Your task to perform on an android device: set default search engine in the chrome app Image 0: 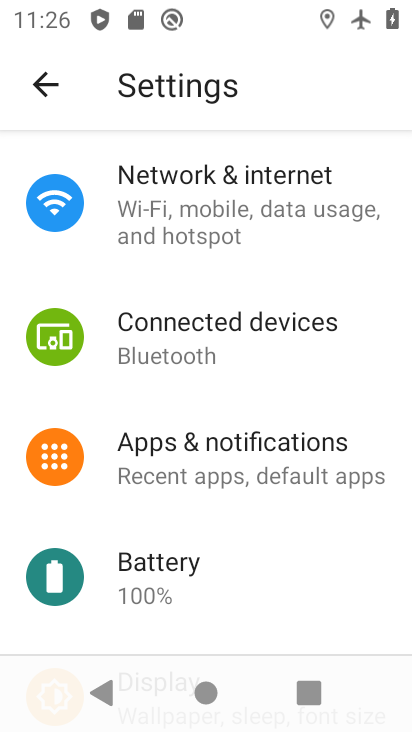
Step 0: press home button
Your task to perform on an android device: set default search engine in the chrome app Image 1: 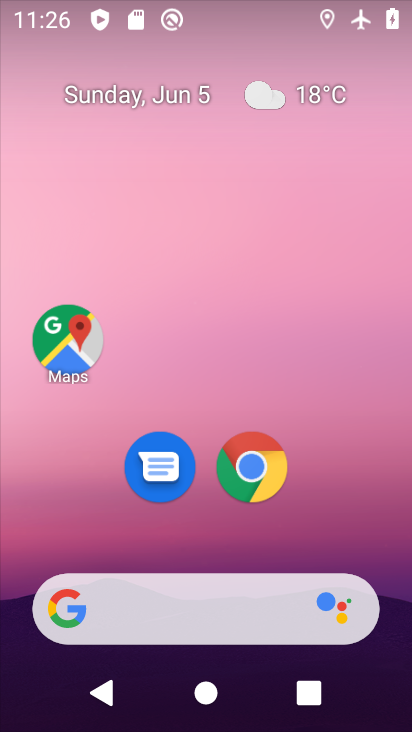
Step 1: click (256, 500)
Your task to perform on an android device: set default search engine in the chrome app Image 2: 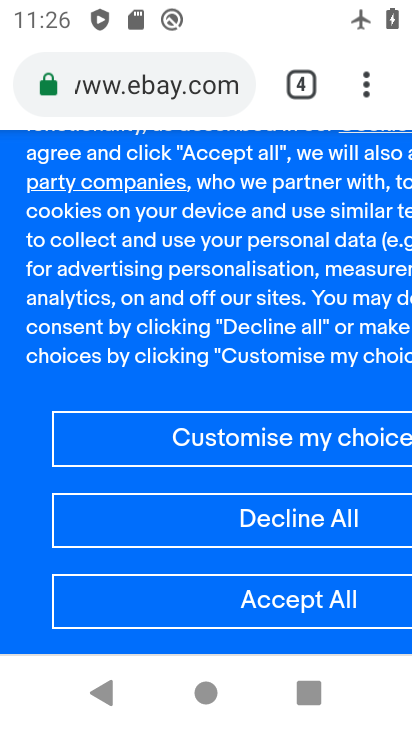
Step 2: click (373, 86)
Your task to perform on an android device: set default search engine in the chrome app Image 3: 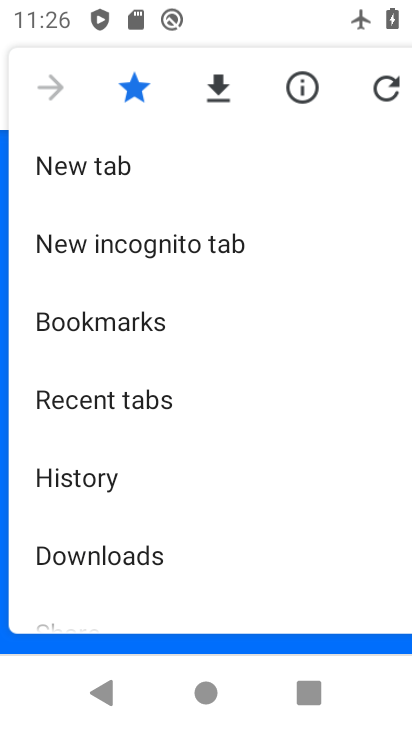
Step 3: drag from (79, 585) to (52, 68)
Your task to perform on an android device: set default search engine in the chrome app Image 4: 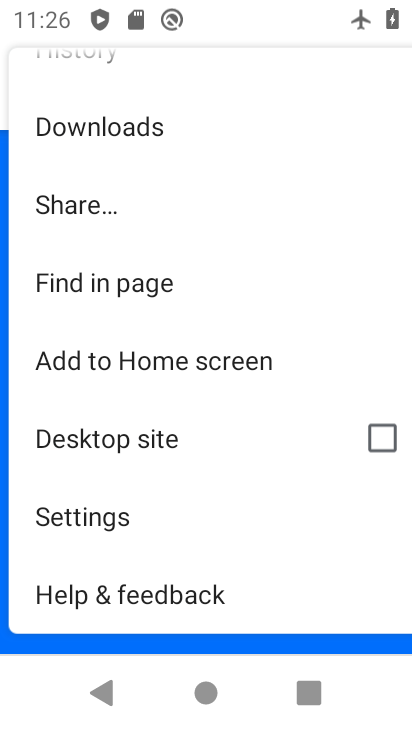
Step 4: click (71, 508)
Your task to perform on an android device: set default search engine in the chrome app Image 5: 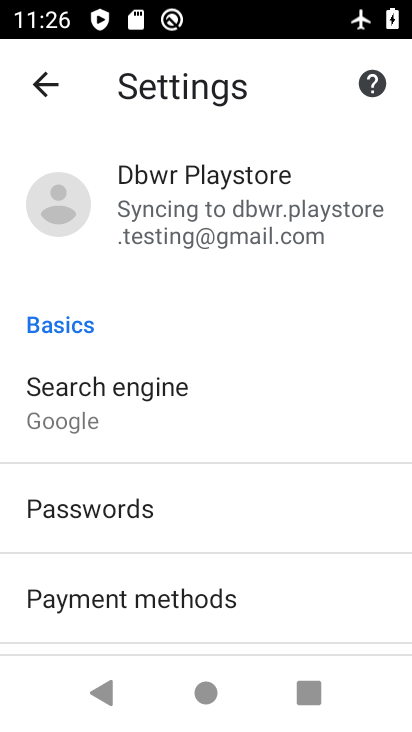
Step 5: click (100, 456)
Your task to perform on an android device: set default search engine in the chrome app Image 6: 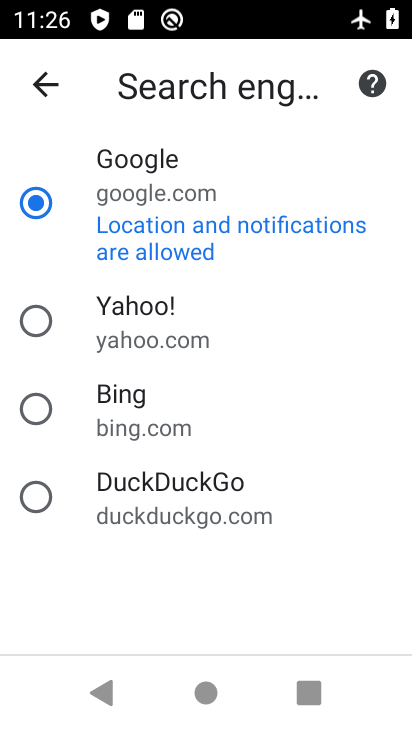
Step 6: click (36, 214)
Your task to perform on an android device: set default search engine in the chrome app Image 7: 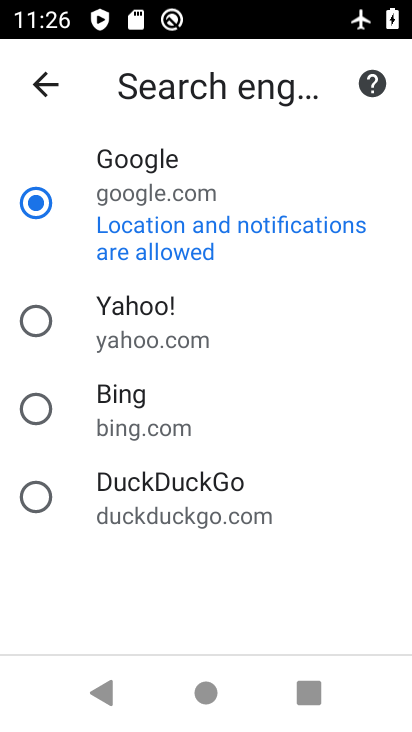
Step 7: task complete